Your task to perform on an android device: turn notification dots on Image 0: 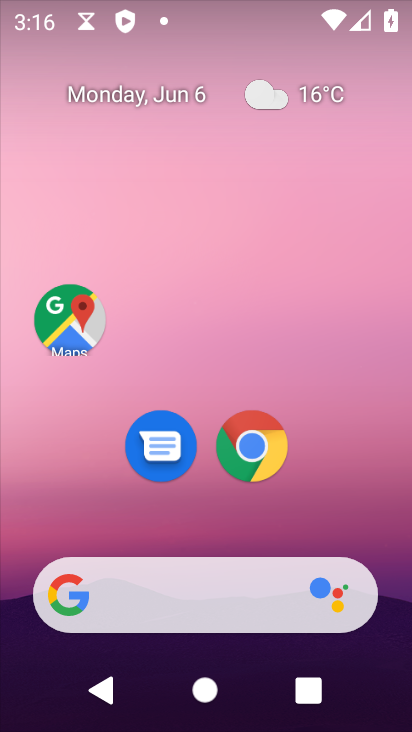
Step 0: drag from (107, 546) to (207, 53)
Your task to perform on an android device: turn notification dots on Image 1: 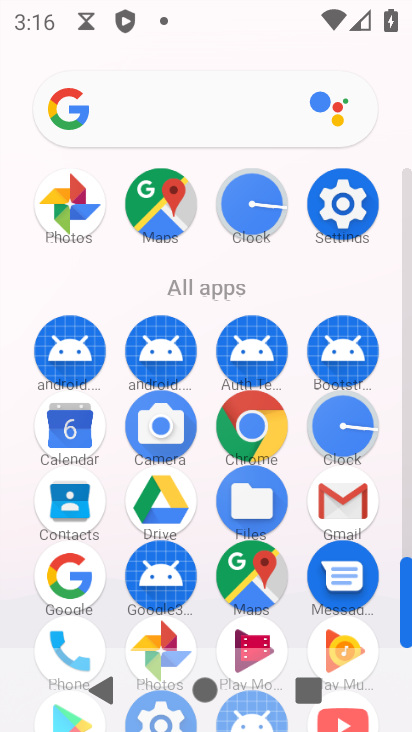
Step 1: drag from (180, 534) to (265, 266)
Your task to perform on an android device: turn notification dots on Image 2: 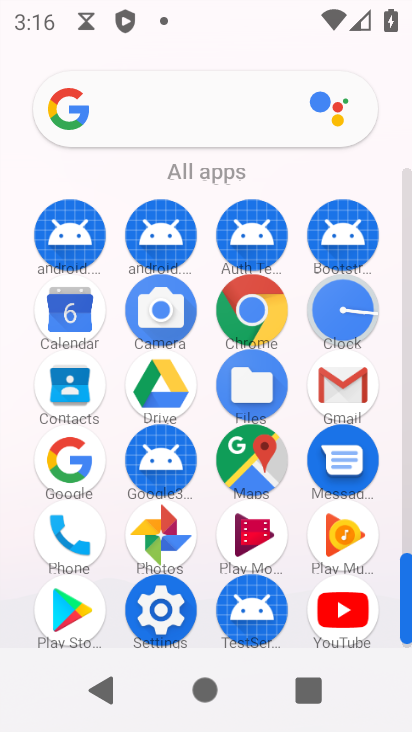
Step 2: click (158, 622)
Your task to perform on an android device: turn notification dots on Image 3: 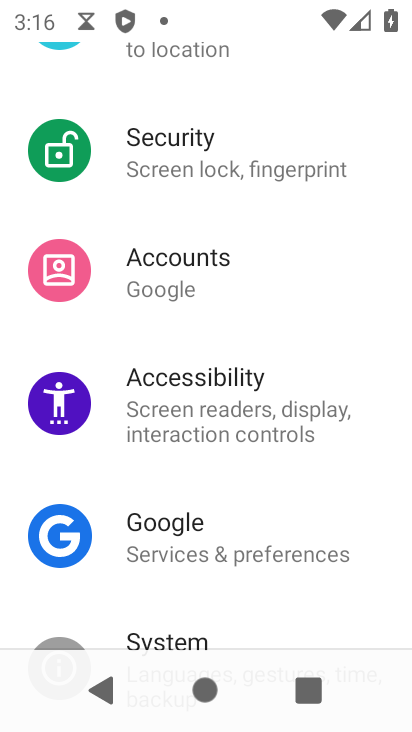
Step 3: drag from (165, 510) to (279, 618)
Your task to perform on an android device: turn notification dots on Image 4: 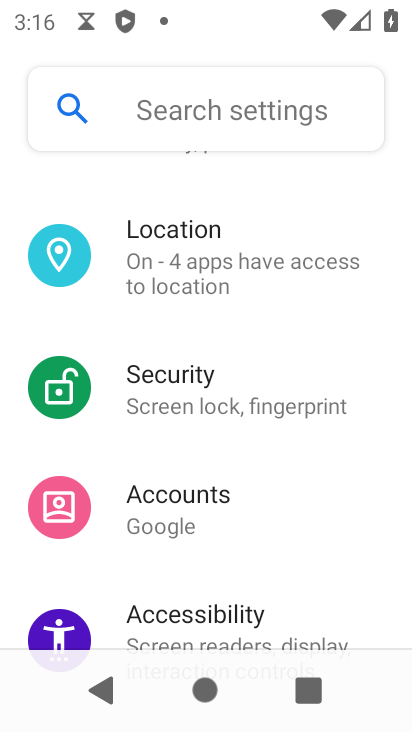
Step 4: drag from (248, 359) to (218, 614)
Your task to perform on an android device: turn notification dots on Image 5: 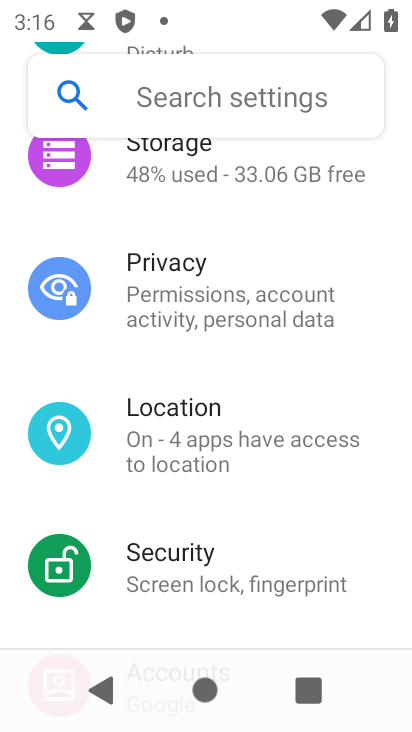
Step 5: drag from (156, 375) to (159, 512)
Your task to perform on an android device: turn notification dots on Image 6: 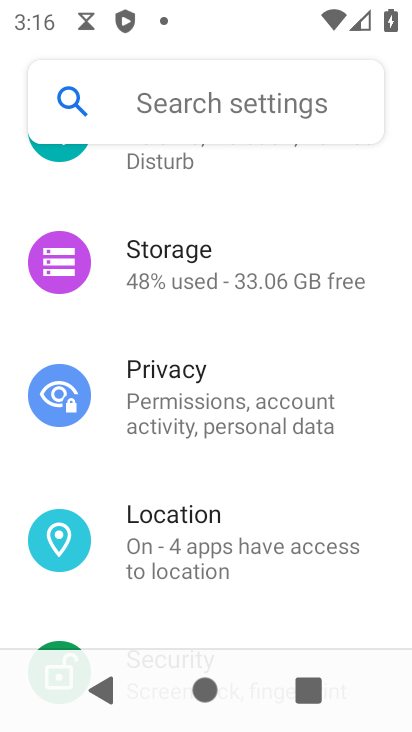
Step 6: drag from (167, 269) to (145, 608)
Your task to perform on an android device: turn notification dots on Image 7: 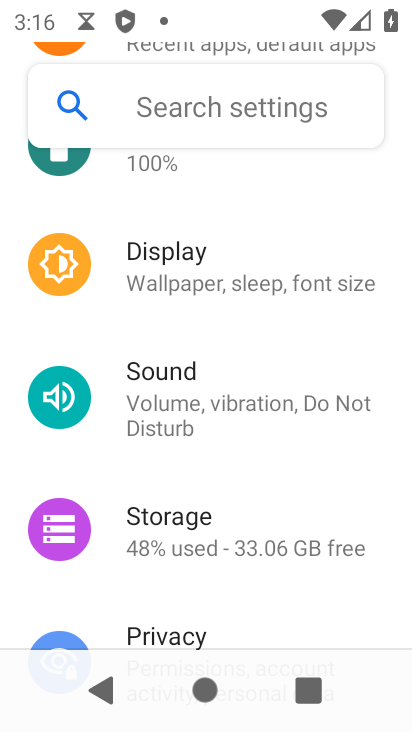
Step 7: drag from (157, 336) to (170, 582)
Your task to perform on an android device: turn notification dots on Image 8: 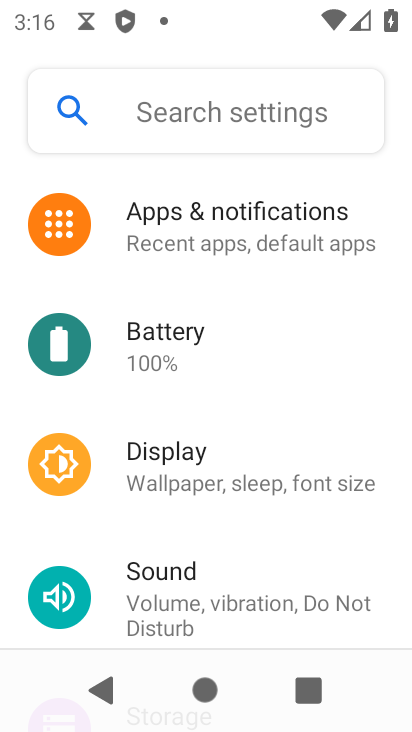
Step 8: click (250, 261)
Your task to perform on an android device: turn notification dots on Image 9: 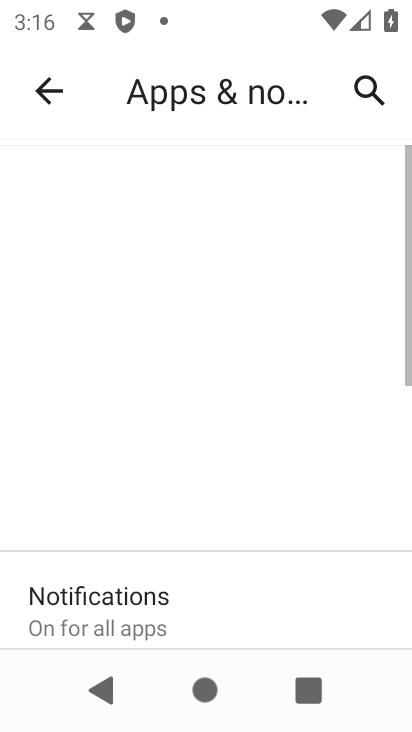
Step 9: drag from (224, 519) to (315, 108)
Your task to perform on an android device: turn notification dots on Image 10: 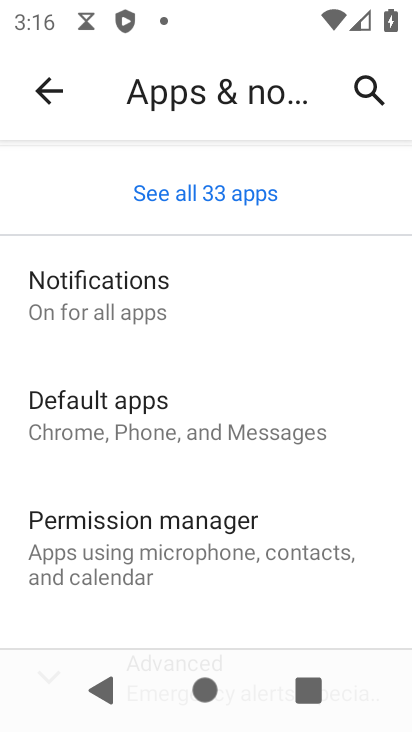
Step 10: click (178, 318)
Your task to perform on an android device: turn notification dots on Image 11: 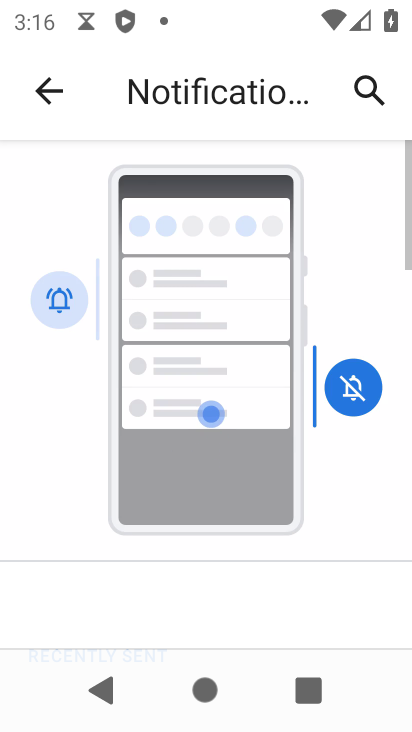
Step 11: drag from (187, 470) to (392, 23)
Your task to perform on an android device: turn notification dots on Image 12: 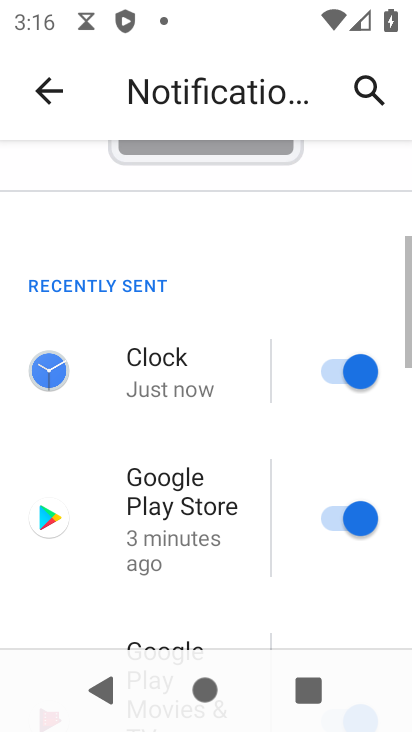
Step 12: drag from (115, 610) to (247, 110)
Your task to perform on an android device: turn notification dots on Image 13: 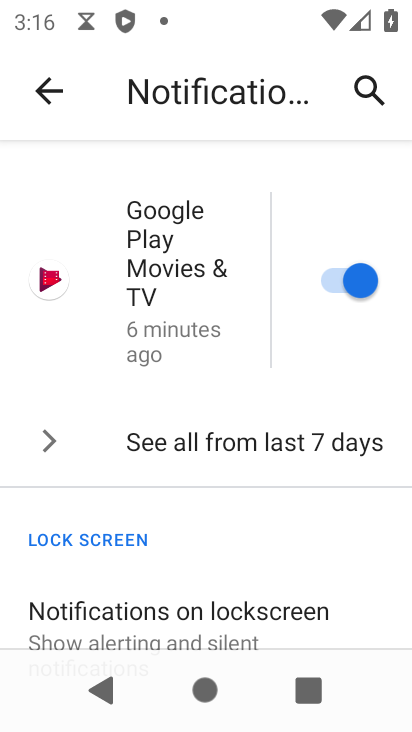
Step 13: drag from (168, 547) to (286, 129)
Your task to perform on an android device: turn notification dots on Image 14: 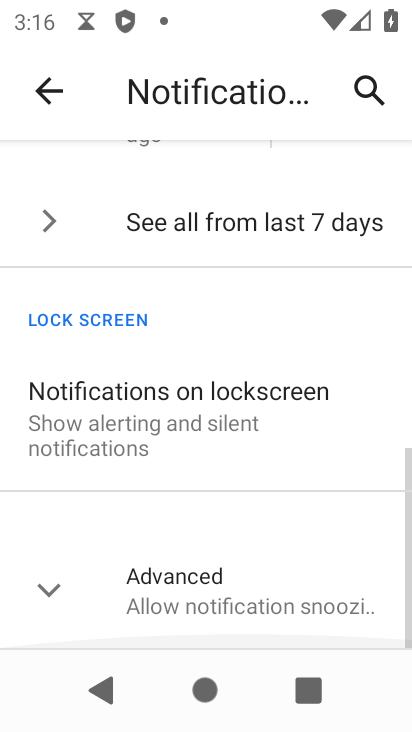
Step 14: click (187, 577)
Your task to perform on an android device: turn notification dots on Image 15: 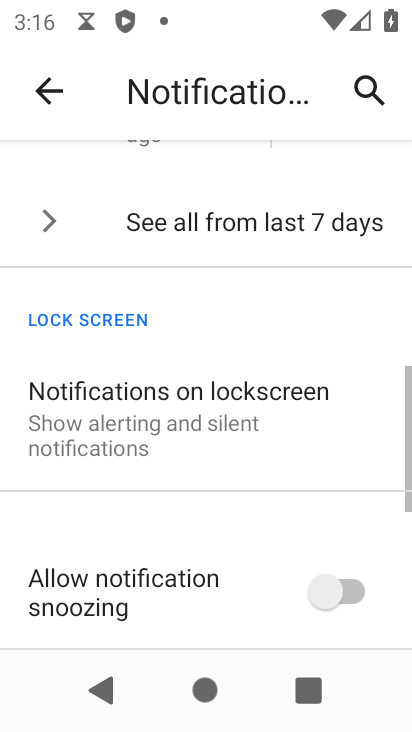
Step 15: drag from (187, 576) to (293, 99)
Your task to perform on an android device: turn notification dots on Image 16: 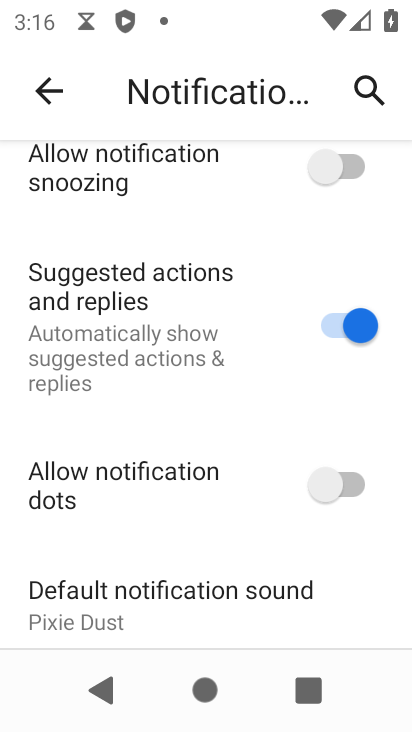
Step 16: drag from (183, 283) to (259, 200)
Your task to perform on an android device: turn notification dots on Image 17: 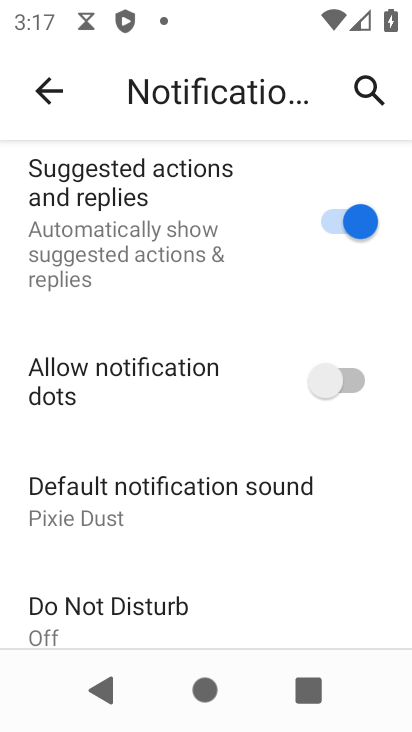
Step 17: click (353, 383)
Your task to perform on an android device: turn notification dots on Image 18: 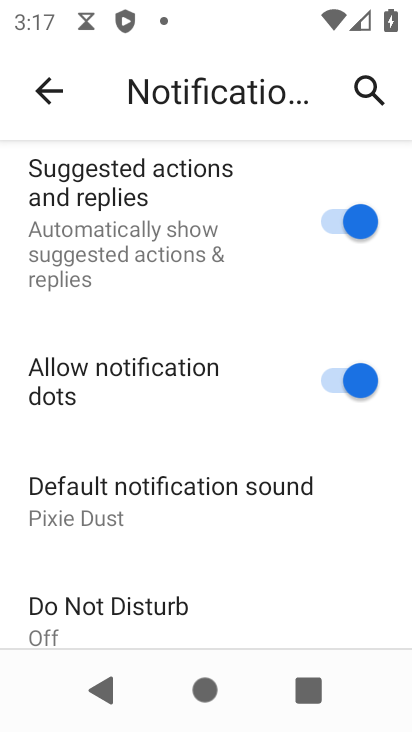
Step 18: task complete